Your task to perform on an android device: check data usage Image 0: 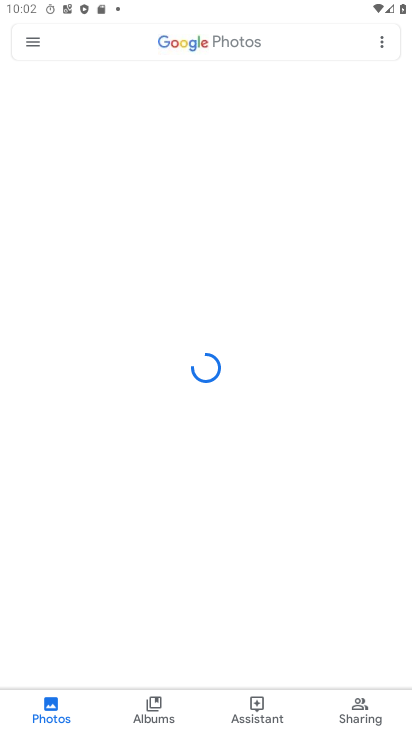
Step 0: press back button
Your task to perform on an android device: check data usage Image 1: 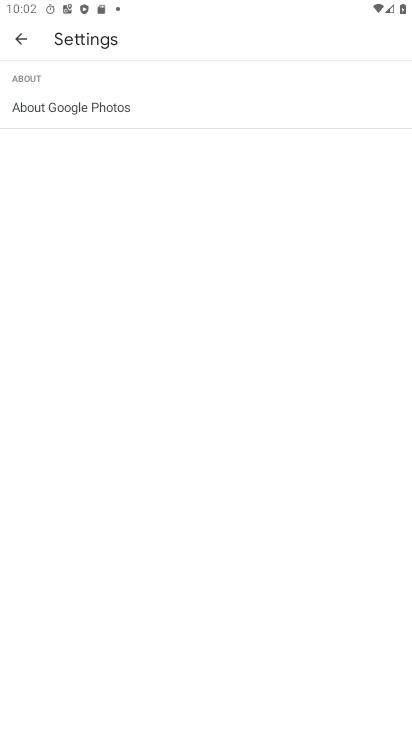
Step 1: press home button
Your task to perform on an android device: check data usage Image 2: 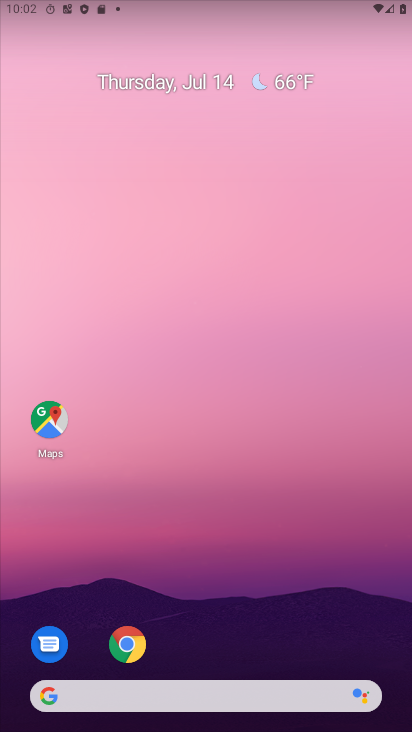
Step 2: drag from (275, 655) to (205, 254)
Your task to perform on an android device: check data usage Image 3: 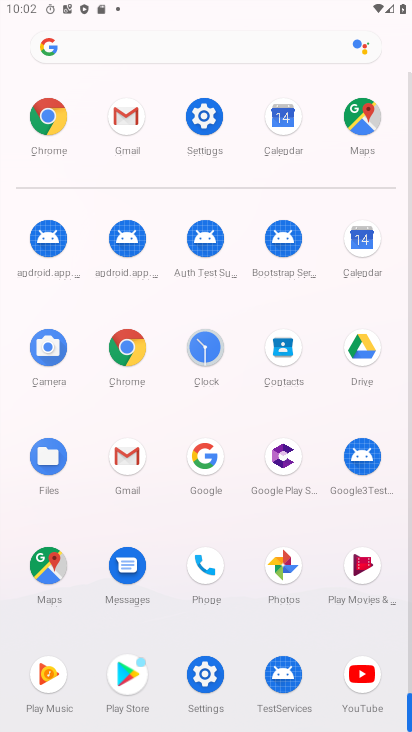
Step 3: click (208, 109)
Your task to perform on an android device: check data usage Image 4: 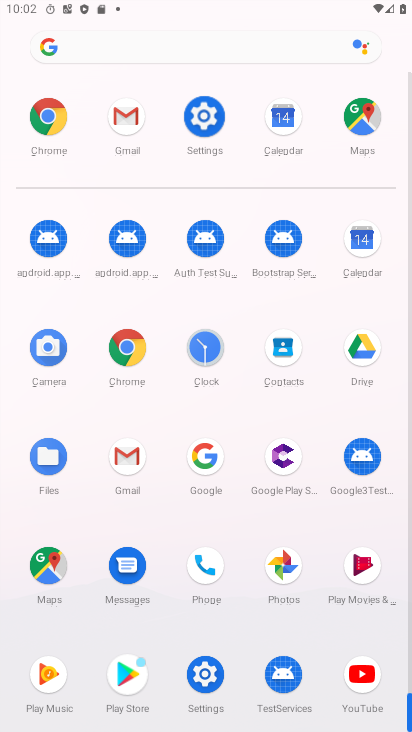
Step 4: click (209, 113)
Your task to perform on an android device: check data usage Image 5: 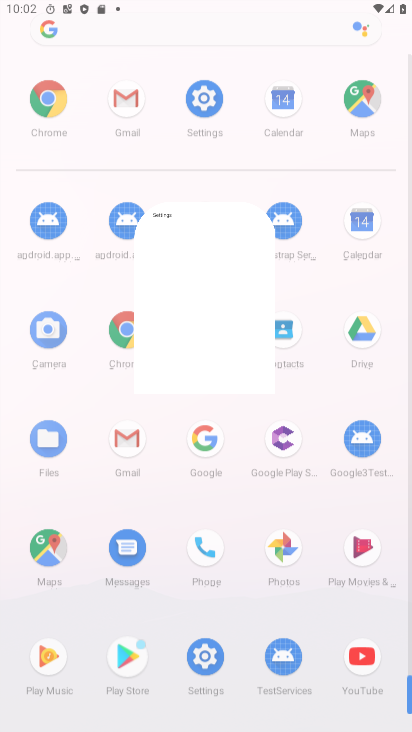
Step 5: click (209, 113)
Your task to perform on an android device: check data usage Image 6: 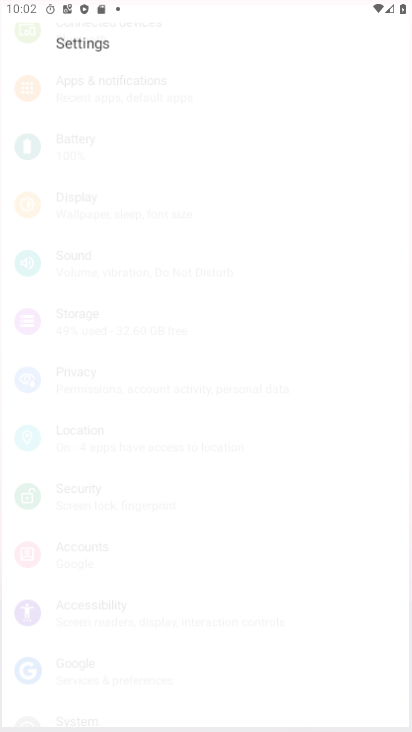
Step 6: click (209, 113)
Your task to perform on an android device: check data usage Image 7: 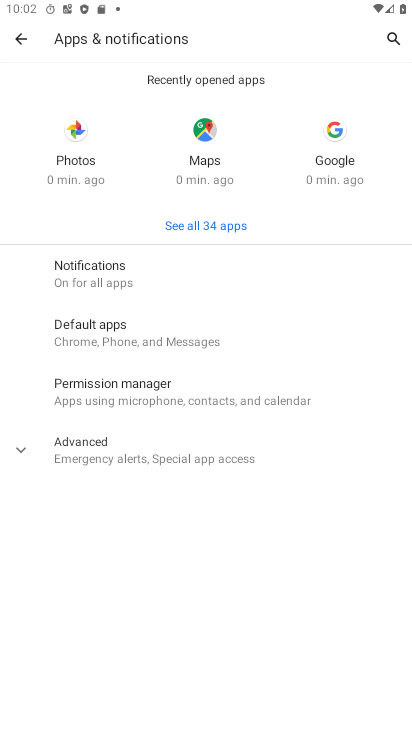
Step 7: click (16, 28)
Your task to perform on an android device: check data usage Image 8: 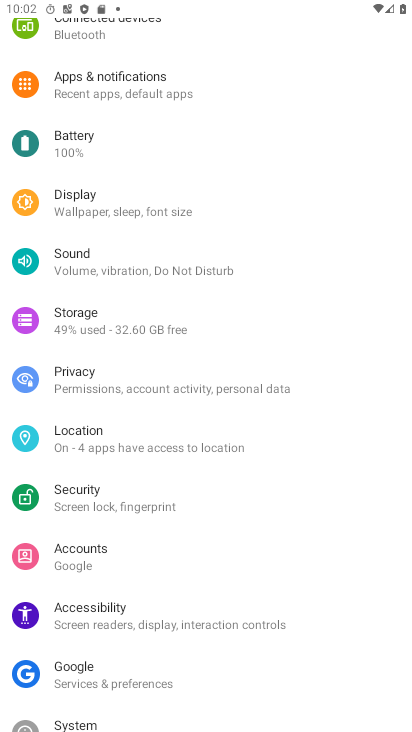
Step 8: drag from (87, 252) to (96, 669)
Your task to perform on an android device: check data usage Image 9: 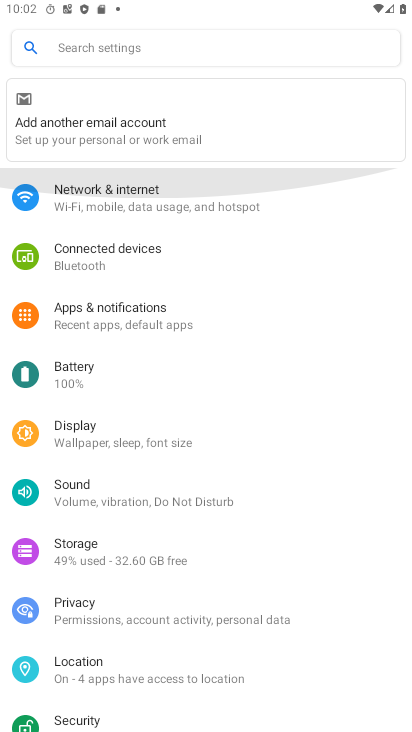
Step 9: drag from (95, 311) to (113, 564)
Your task to perform on an android device: check data usage Image 10: 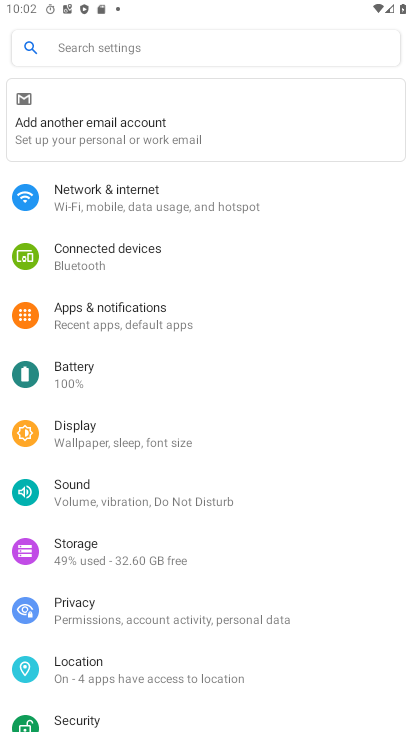
Step 10: click (102, 200)
Your task to perform on an android device: check data usage Image 11: 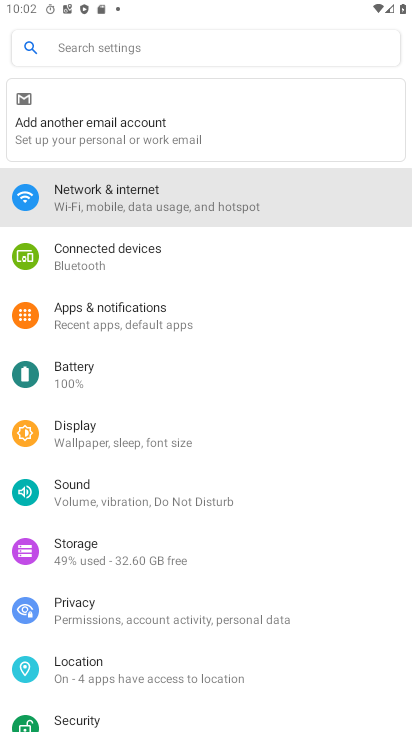
Step 11: click (104, 204)
Your task to perform on an android device: check data usage Image 12: 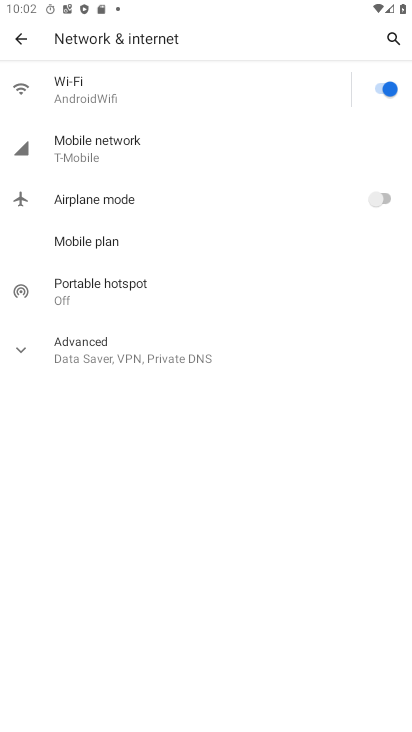
Step 12: click (88, 165)
Your task to perform on an android device: check data usage Image 13: 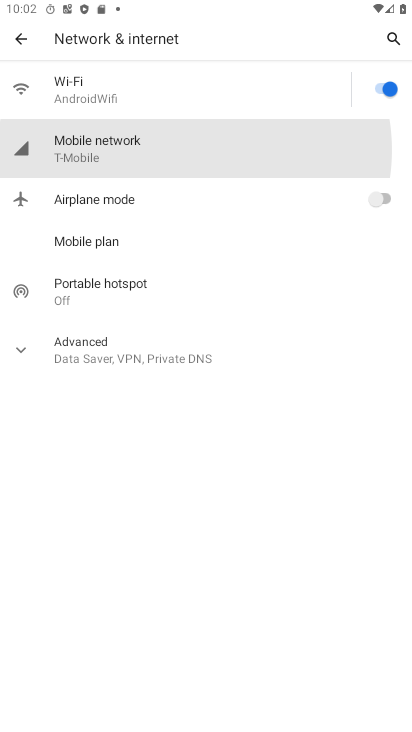
Step 13: click (88, 165)
Your task to perform on an android device: check data usage Image 14: 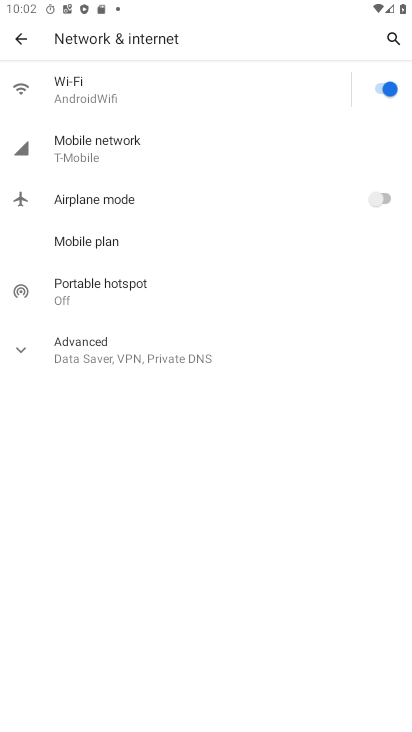
Step 14: click (88, 165)
Your task to perform on an android device: check data usage Image 15: 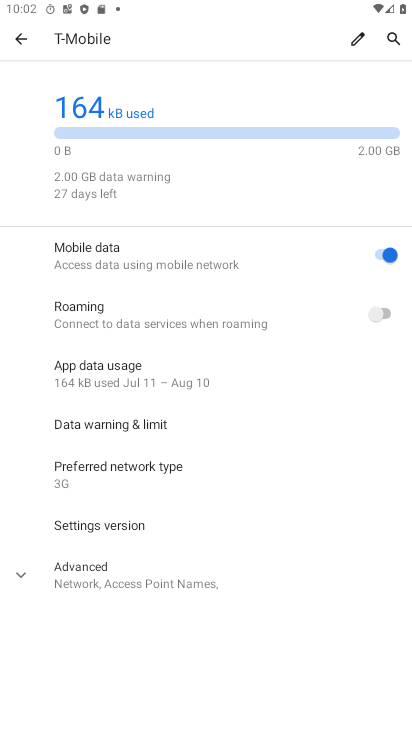
Step 15: task complete